Your task to perform on an android device: change notification settings in the gmail app Image 0: 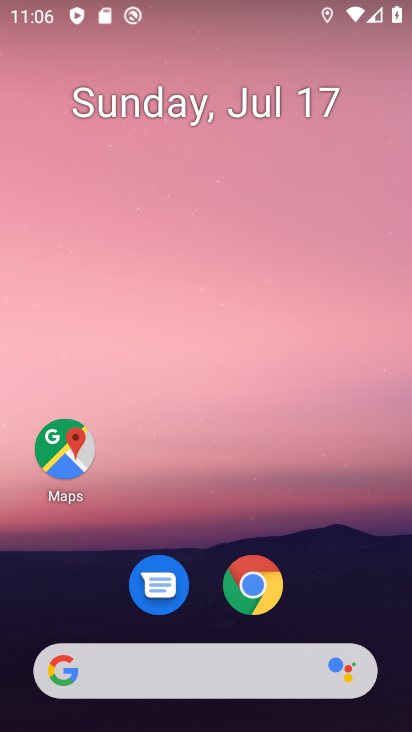
Step 0: click (301, 208)
Your task to perform on an android device: change notification settings in the gmail app Image 1: 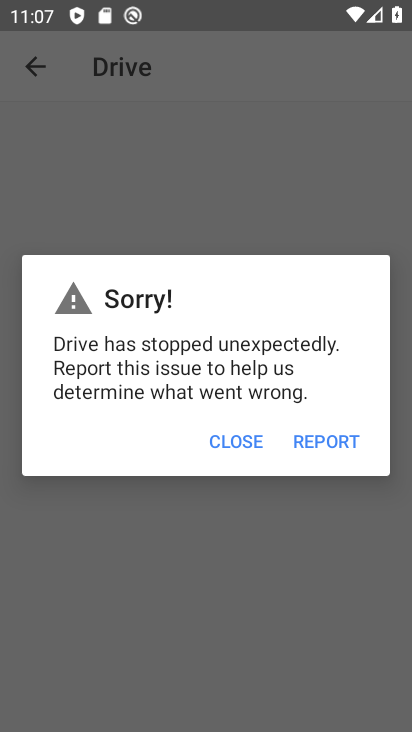
Step 1: press home button
Your task to perform on an android device: change notification settings in the gmail app Image 2: 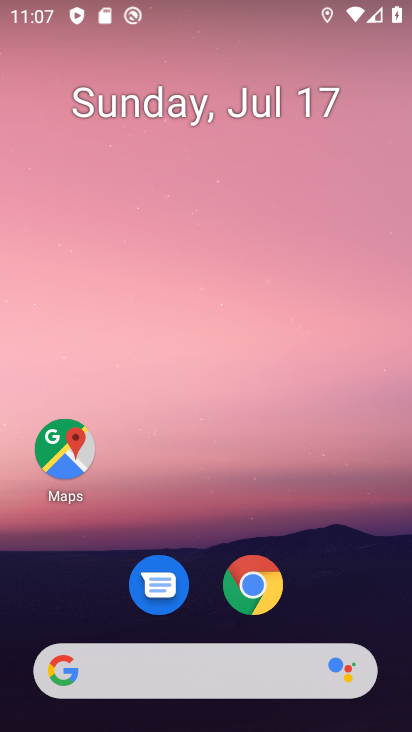
Step 2: drag from (285, 513) to (240, 96)
Your task to perform on an android device: change notification settings in the gmail app Image 3: 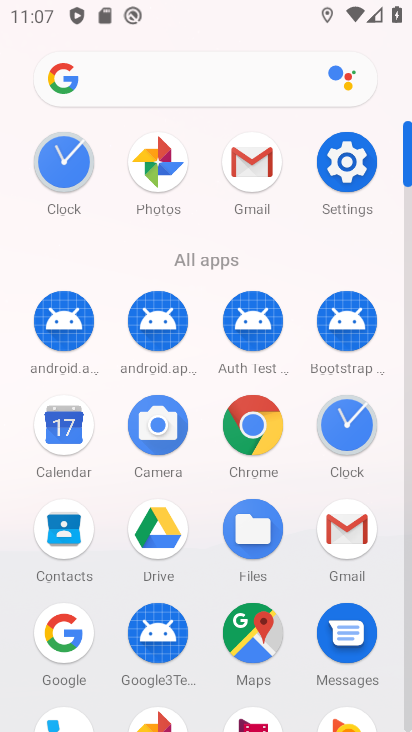
Step 3: click (242, 168)
Your task to perform on an android device: change notification settings in the gmail app Image 4: 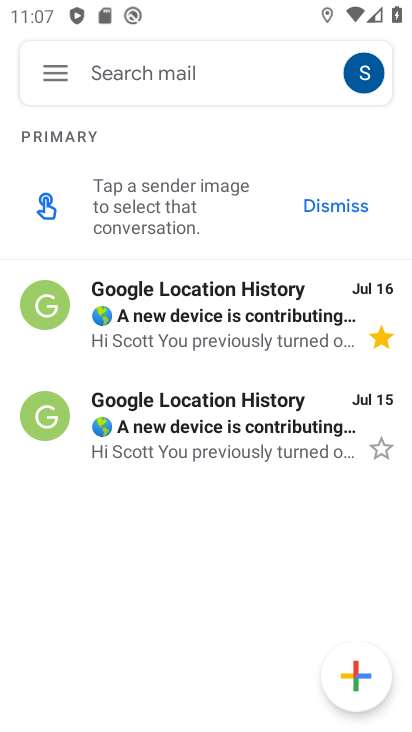
Step 4: click (60, 65)
Your task to perform on an android device: change notification settings in the gmail app Image 5: 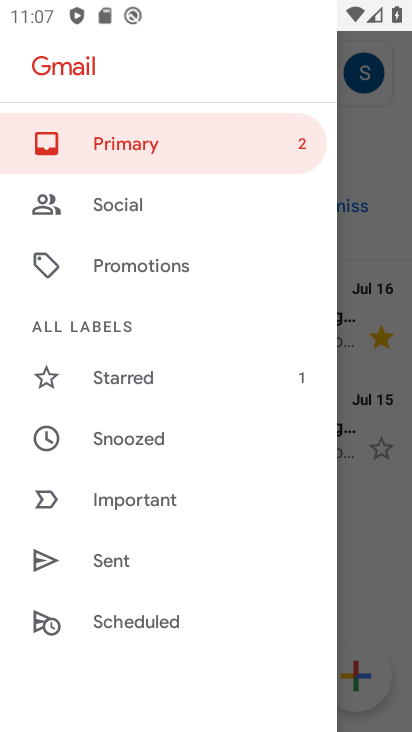
Step 5: click (111, 580)
Your task to perform on an android device: change notification settings in the gmail app Image 6: 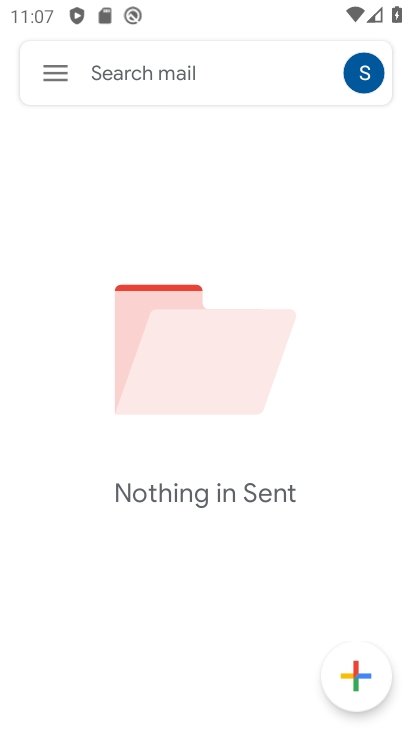
Step 6: click (52, 59)
Your task to perform on an android device: change notification settings in the gmail app Image 7: 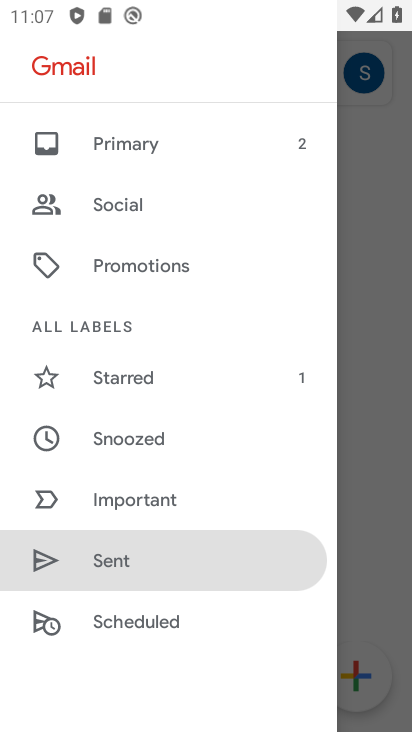
Step 7: drag from (158, 406) to (165, 208)
Your task to perform on an android device: change notification settings in the gmail app Image 8: 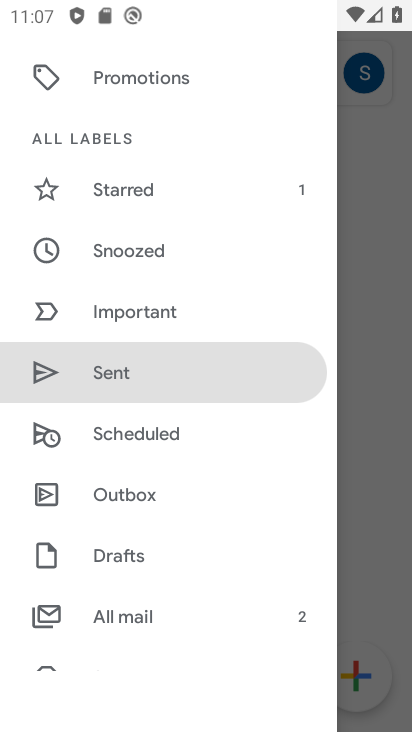
Step 8: drag from (152, 507) to (174, 193)
Your task to perform on an android device: change notification settings in the gmail app Image 9: 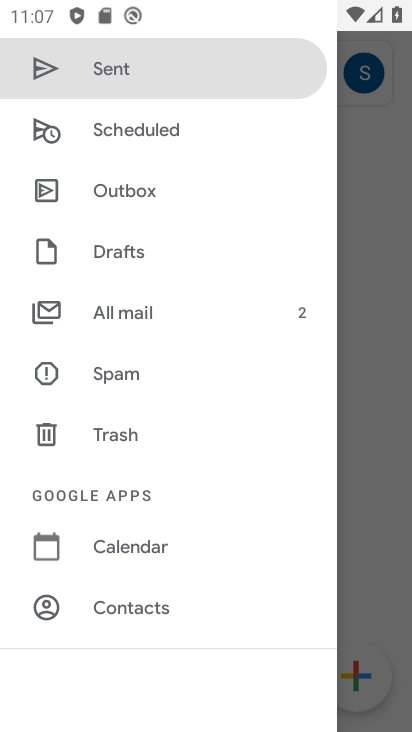
Step 9: drag from (171, 235) to (194, 60)
Your task to perform on an android device: change notification settings in the gmail app Image 10: 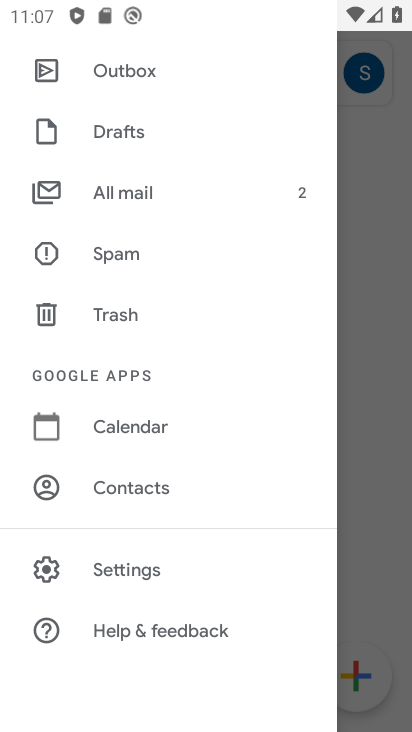
Step 10: click (147, 560)
Your task to perform on an android device: change notification settings in the gmail app Image 11: 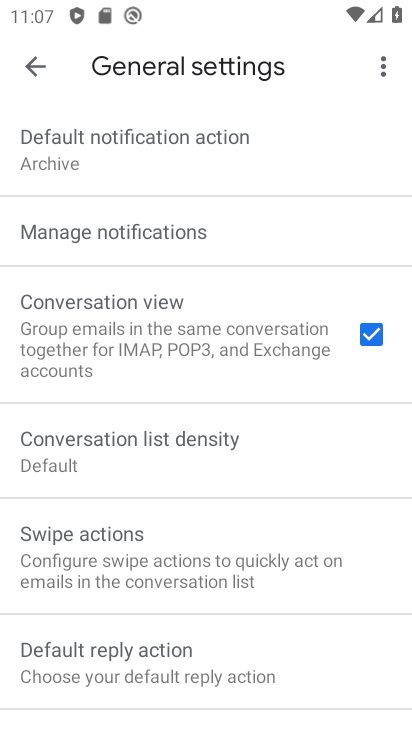
Step 11: click (192, 229)
Your task to perform on an android device: change notification settings in the gmail app Image 12: 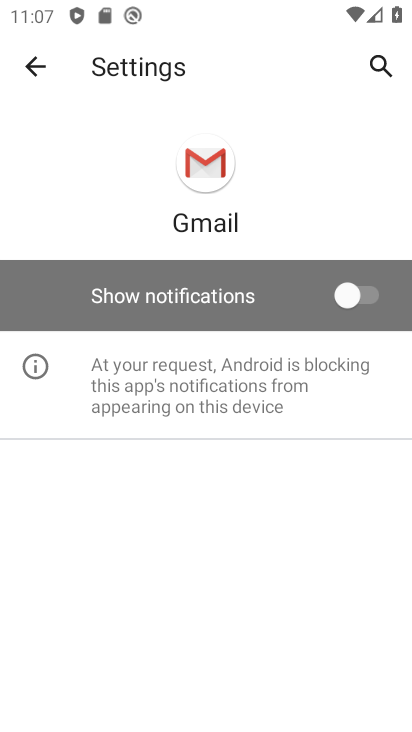
Step 12: click (353, 292)
Your task to perform on an android device: change notification settings in the gmail app Image 13: 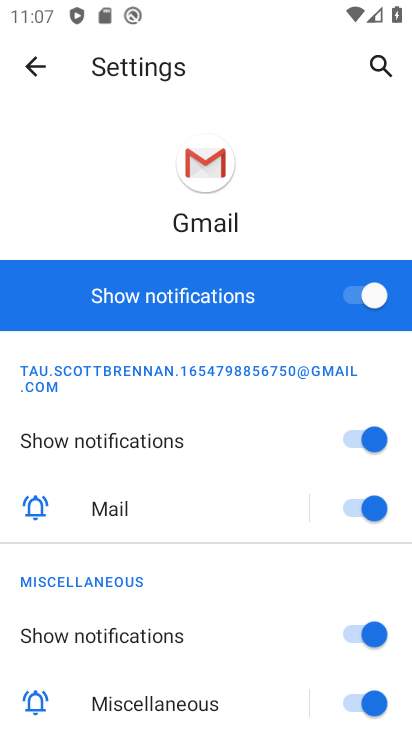
Step 13: task complete